Your task to perform on an android device: Check the weather Image 0: 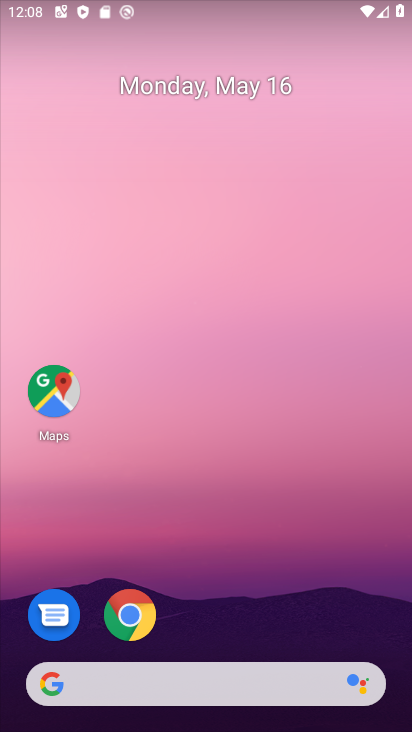
Step 0: drag from (87, 474) to (405, 348)
Your task to perform on an android device: Check the weather Image 1: 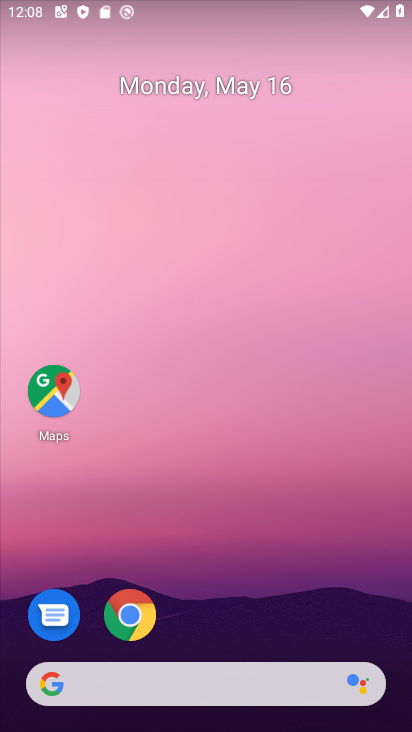
Step 1: click (149, 201)
Your task to perform on an android device: Check the weather Image 2: 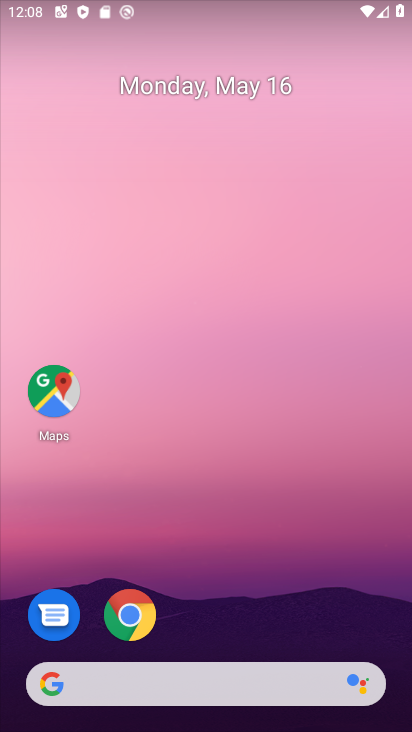
Step 2: task complete